Your task to perform on an android device: change notifications settings Image 0: 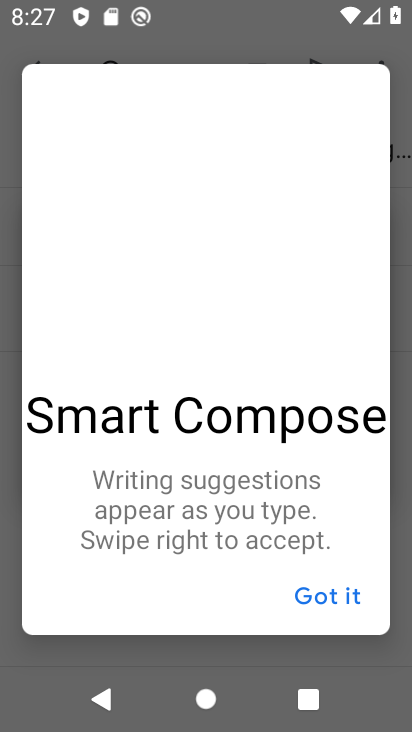
Step 0: press home button
Your task to perform on an android device: change notifications settings Image 1: 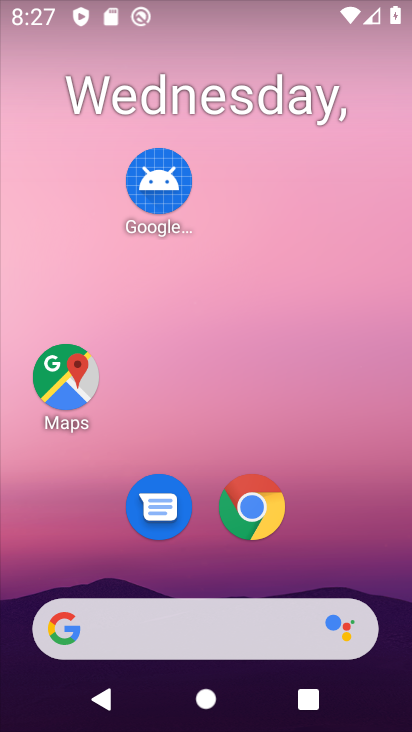
Step 1: drag from (203, 569) to (150, 12)
Your task to perform on an android device: change notifications settings Image 2: 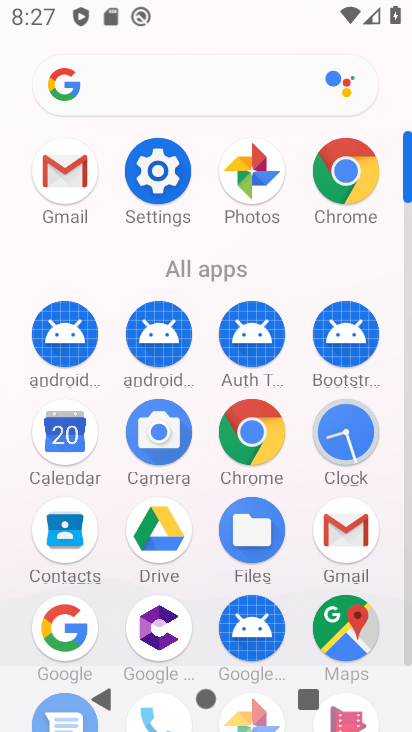
Step 2: click (152, 170)
Your task to perform on an android device: change notifications settings Image 3: 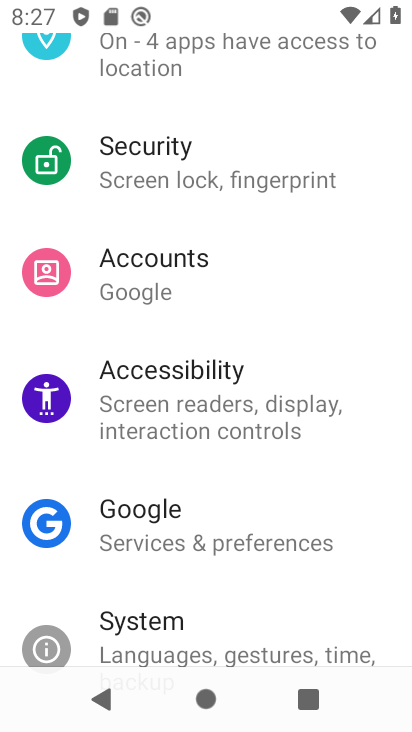
Step 3: drag from (161, 387) to (167, 496)
Your task to perform on an android device: change notifications settings Image 4: 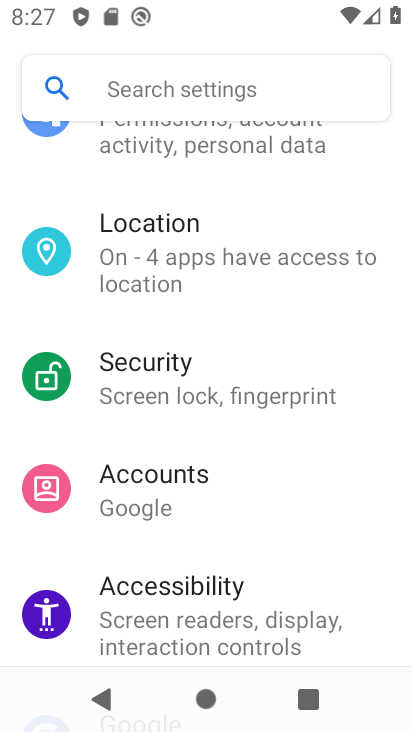
Step 4: drag from (199, 210) to (202, 464)
Your task to perform on an android device: change notifications settings Image 5: 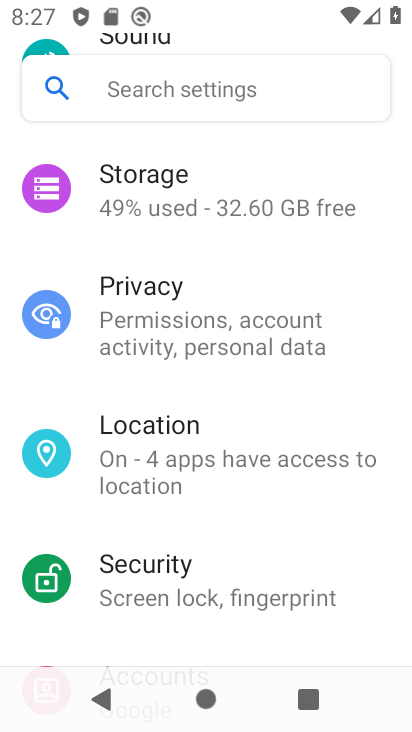
Step 5: drag from (202, 241) to (194, 453)
Your task to perform on an android device: change notifications settings Image 6: 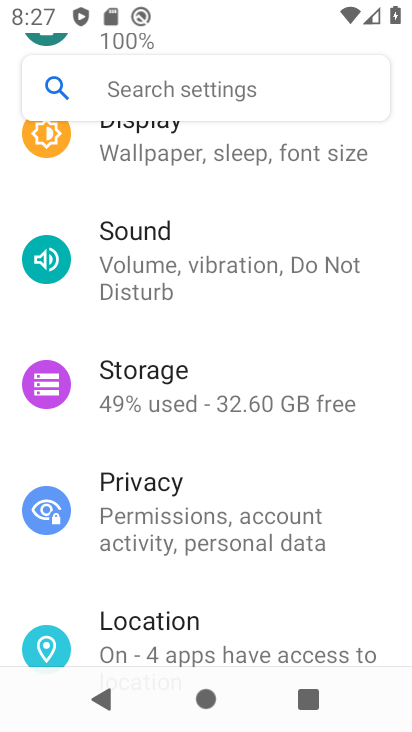
Step 6: drag from (189, 324) to (186, 528)
Your task to perform on an android device: change notifications settings Image 7: 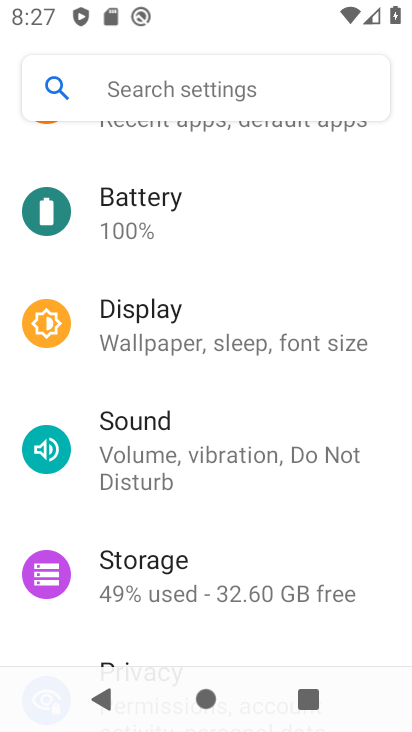
Step 7: drag from (208, 246) to (233, 522)
Your task to perform on an android device: change notifications settings Image 8: 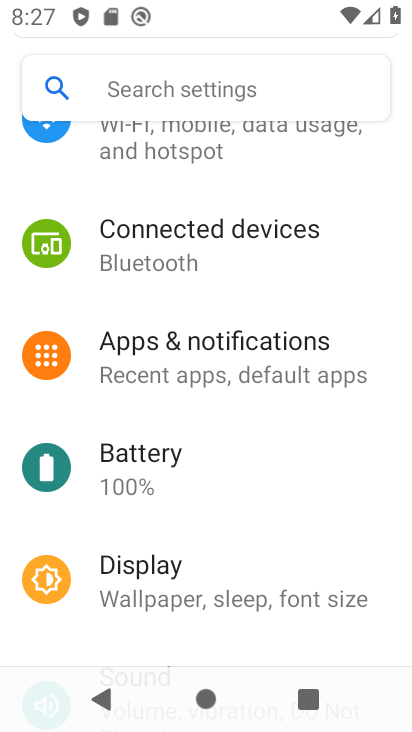
Step 8: click (233, 370)
Your task to perform on an android device: change notifications settings Image 9: 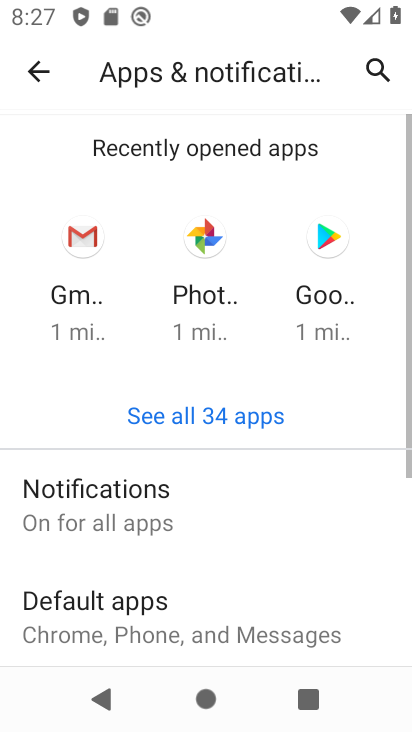
Step 9: click (189, 493)
Your task to perform on an android device: change notifications settings Image 10: 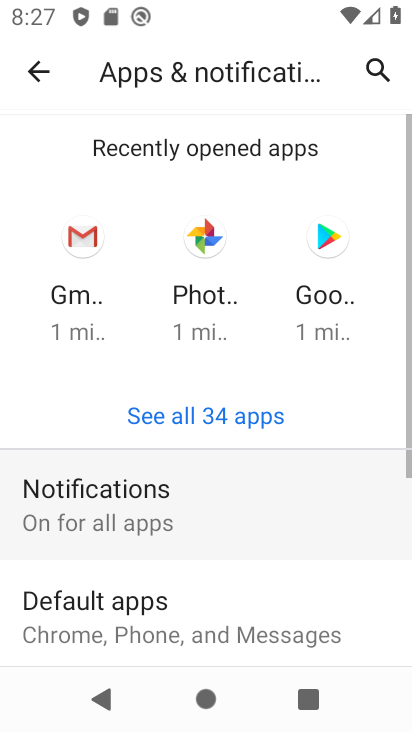
Step 10: task complete